Your task to perform on an android device: make emails show in primary in the gmail app Image 0: 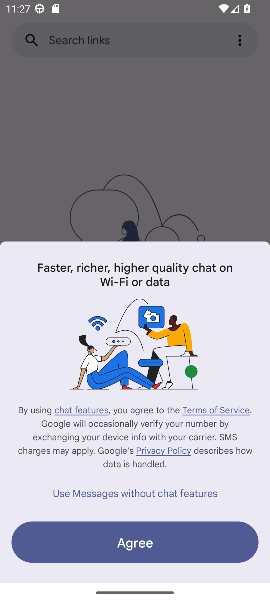
Step 0: press home button
Your task to perform on an android device: make emails show in primary in the gmail app Image 1: 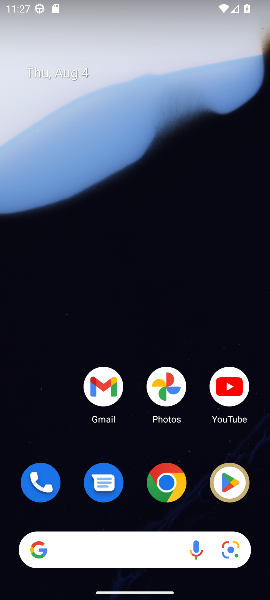
Step 1: drag from (124, 428) to (131, 132)
Your task to perform on an android device: make emails show in primary in the gmail app Image 2: 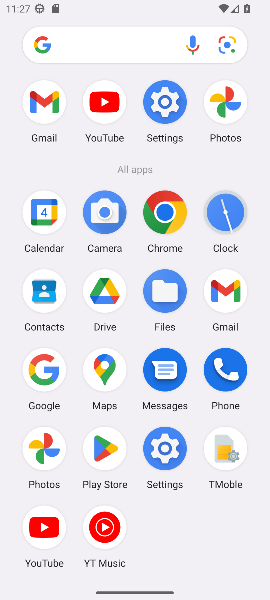
Step 2: click (216, 303)
Your task to perform on an android device: make emails show in primary in the gmail app Image 3: 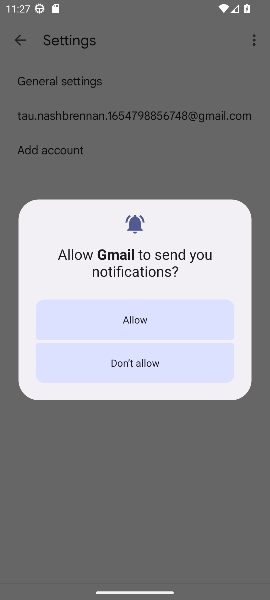
Step 3: click (178, 317)
Your task to perform on an android device: make emails show in primary in the gmail app Image 4: 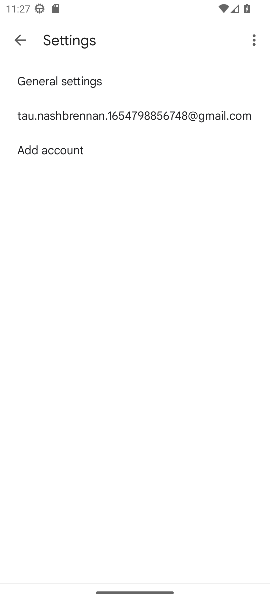
Step 4: click (63, 112)
Your task to perform on an android device: make emails show in primary in the gmail app Image 5: 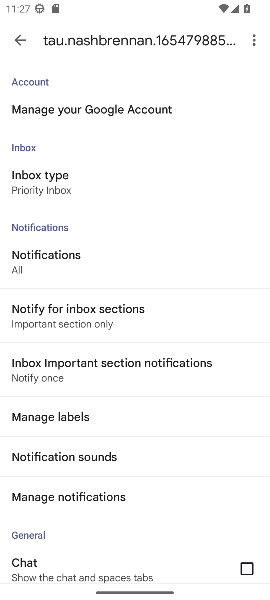
Step 5: click (78, 176)
Your task to perform on an android device: make emails show in primary in the gmail app Image 6: 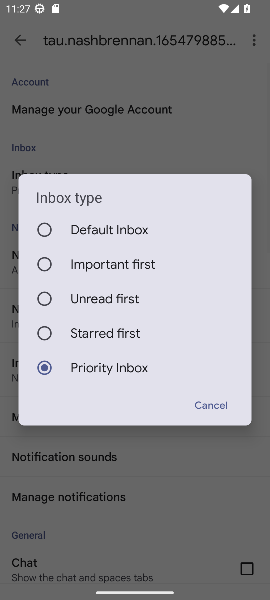
Step 6: click (87, 225)
Your task to perform on an android device: make emails show in primary in the gmail app Image 7: 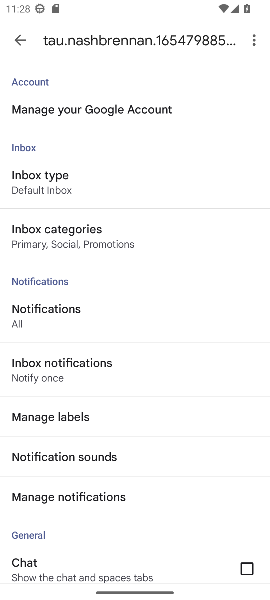
Step 7: task complete